Your task to perform on an android device: change the clock display to analog Image 0: 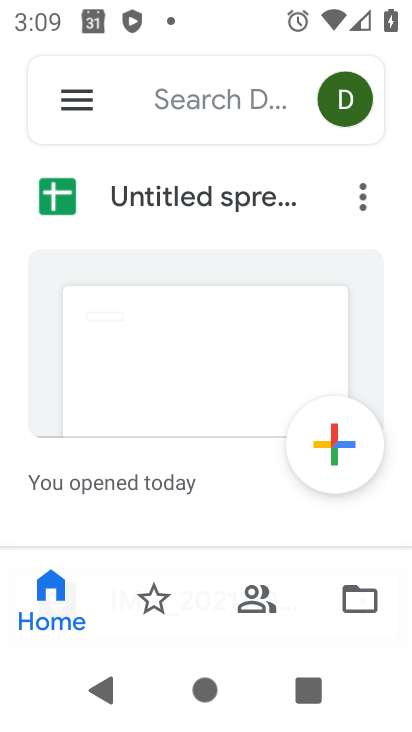
Step 0: press home button
Your task to perform on an android device: change the clock display to analog Image 1: 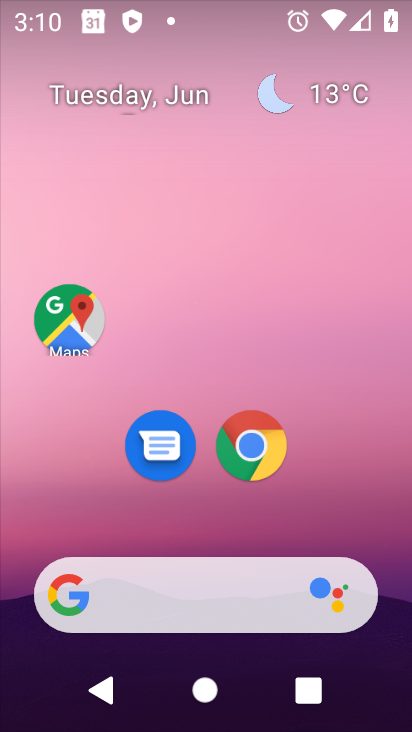
Step 1: drag from (399, 613) to (392, 65)
Your task to perform on an android device: change the clock display to analog Image 2: 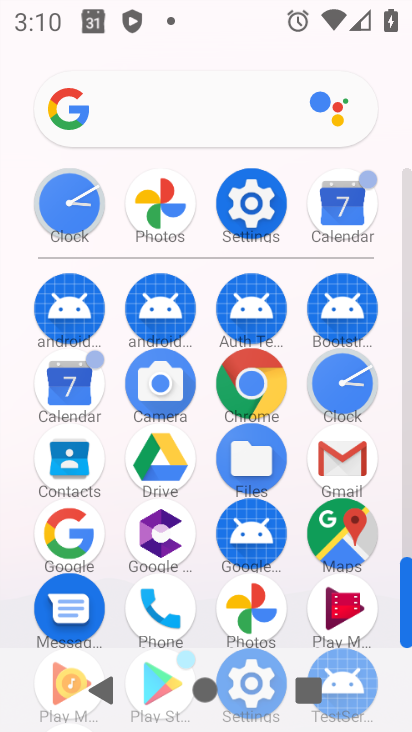
Step 2: click (339, 381)
Your task to perform on an android device: change the clock display to analog Image 3: 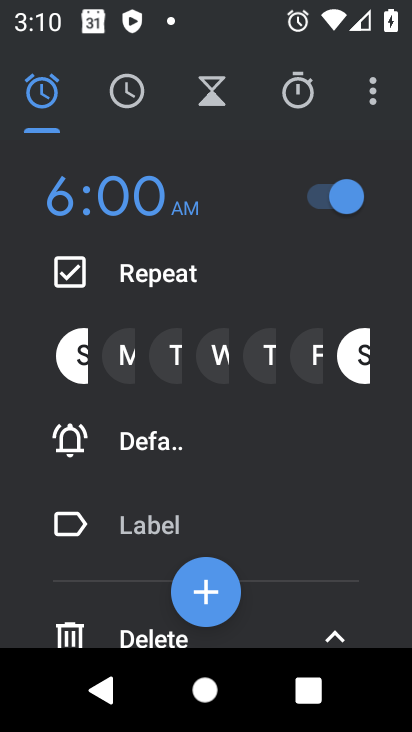
Step 3: click (372, 98)
Your task to perform on an android device: change the clock display to analog Image 4: 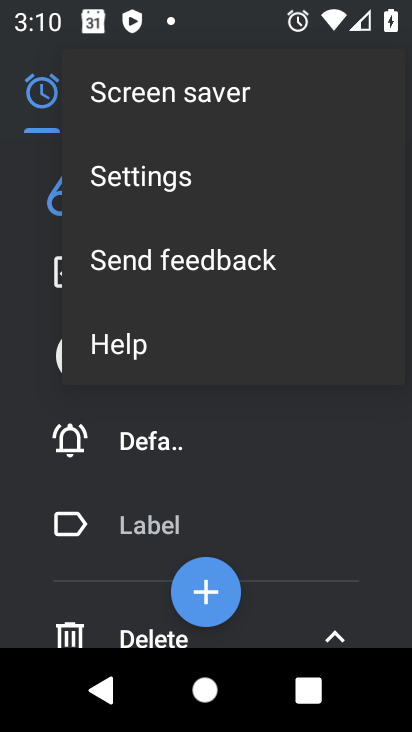
Step 4: click (142, 181)
Your task to perform on an android device: change the clock display to analog Image 5: 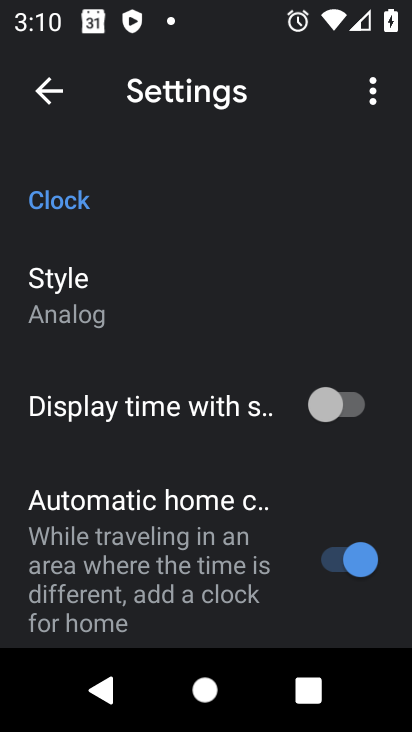
Step 5: task complete